Your task to perform on an android device: Go to privacy settings Image 0: 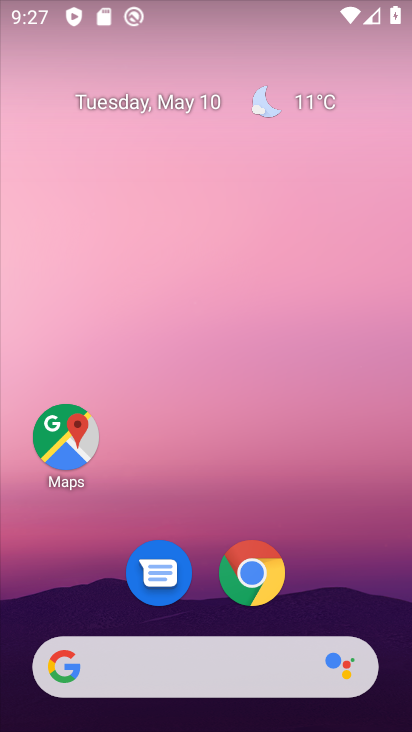
Step 0: drag from (310, 580) to (328, 273)
Your task to perform on an android device: Go to privacy settings Image 1: 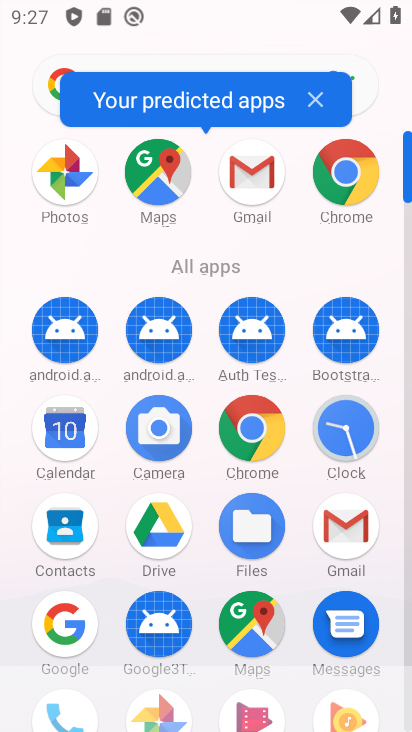
Step 1: drag from (300, 652) to (338, 156)
Your task to perform on an android device: Go to privacy settings Image 2: 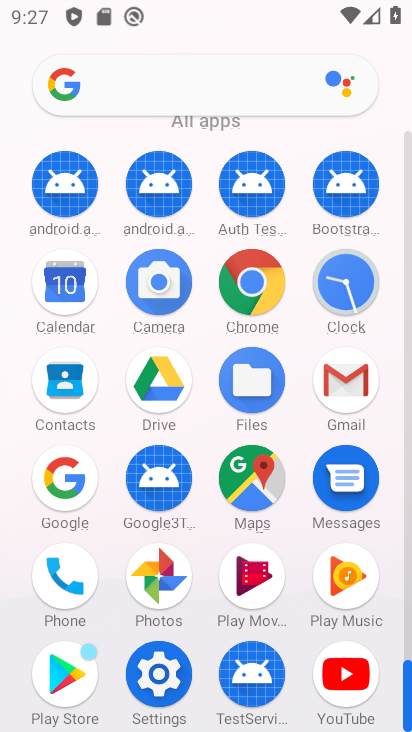
Step 2: click (161, 659)
Your task to perform on an android device: Go to privacy settings Image 3: 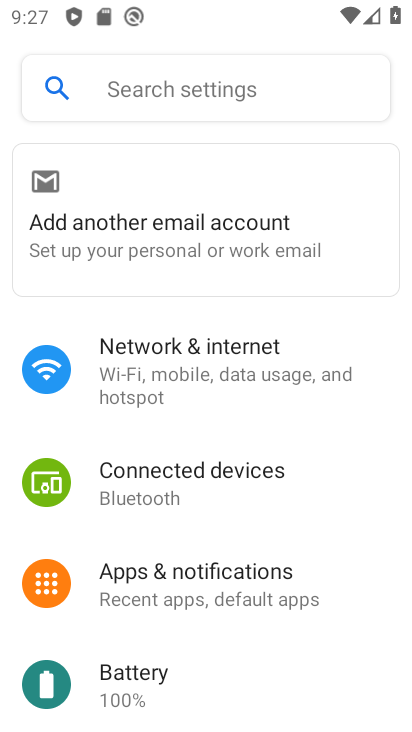
Step 3: drag from (240, 667) to (279, 290)
Your task to perform on an android device: Go to privacy settings Image 4: 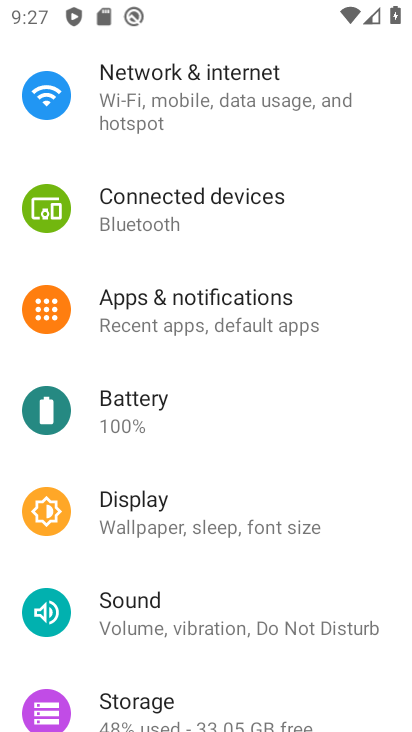
Step 4: drag from (273, 668) to (281, 285)
Your task to perform on an android device: Go to privacy settings Image 5: 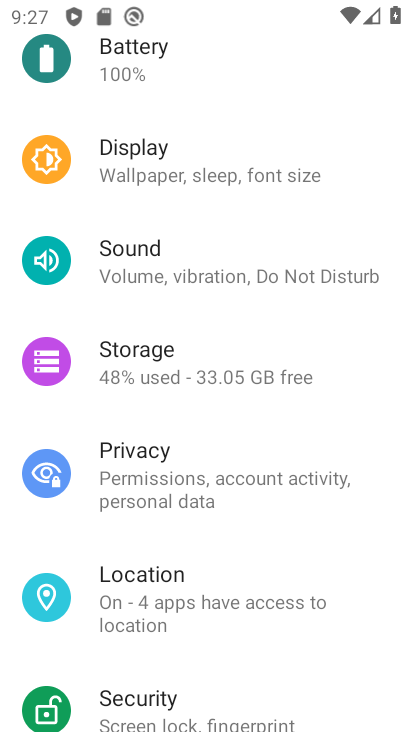
Step 5: drag from (207, 699) to (224, 563)
Your task to perform on an android device: Go to privacy settings Image 6: 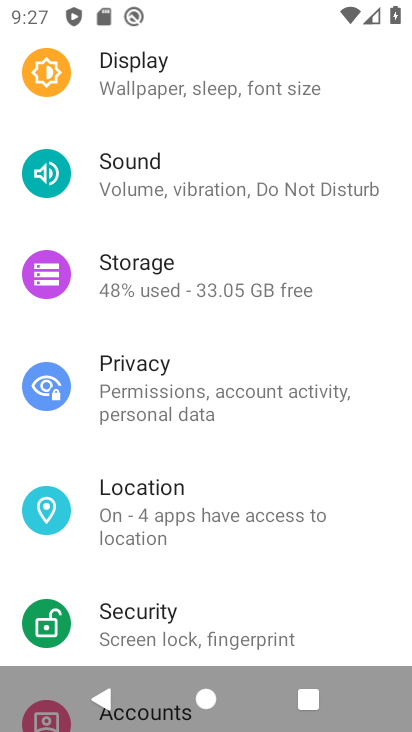
Step 6: click (189, 416)
Your task to perform on an android device: Go to privacy settings Image 7: 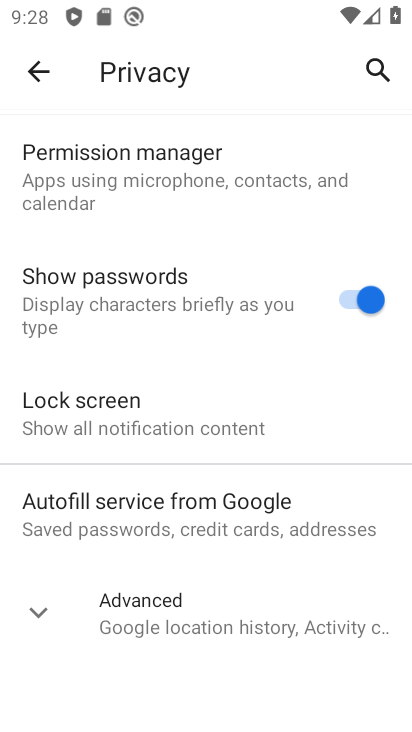
Step 7: task complete